Your task to perform on an android device: Turn on the flashlight Image 0: 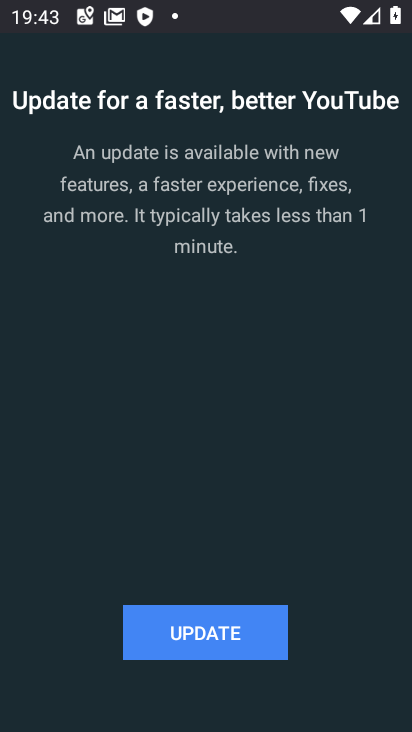
Step 0: press home button
Your task to perform on an android device: Turn on the flashlight Image 1: 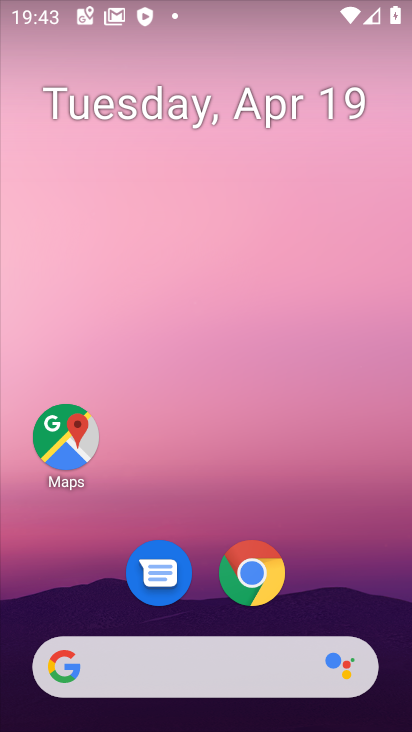
Step 1: drag from (345, 389) to (352, 116)
Your task to perform on an android device: Turn on the flashlight Image 2: 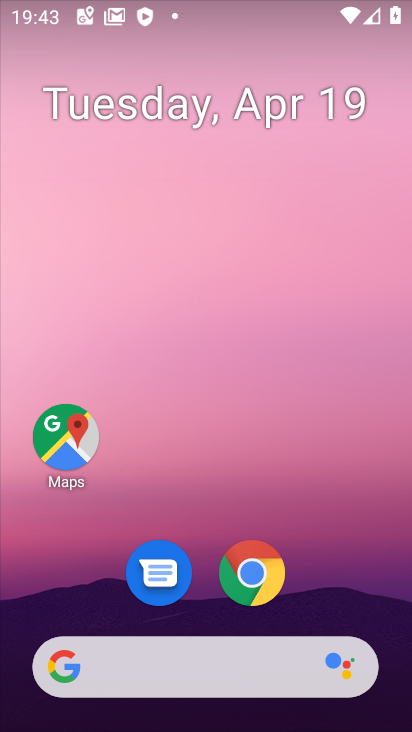
Step 2: click (369, 26)
Your task to perform on an android device: Turn on the flashlight Image 3: 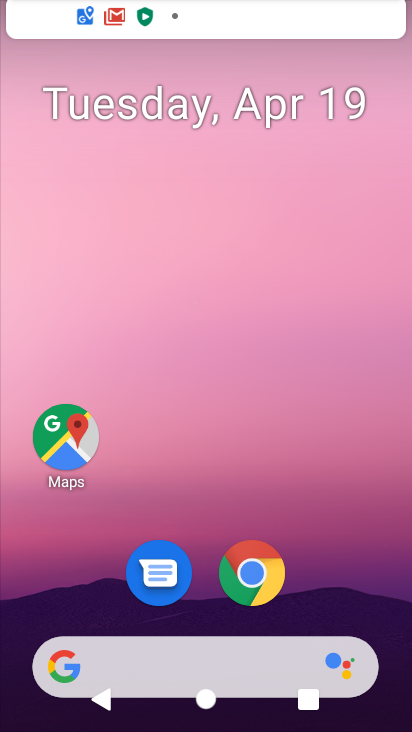
Step 3: drag from (365, 590) to (318, 89)
Your task to perform on an android device: Turn on the flashlight Image 4: 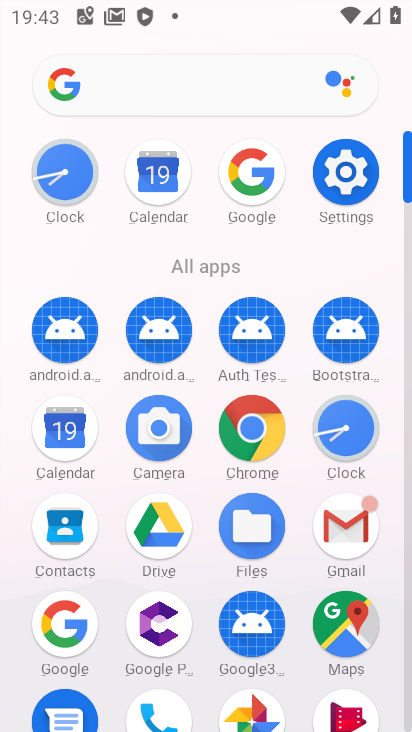
Step 4: click (350, 168)
Your task to perform on an android device: Turn on the flashlight Image 5: 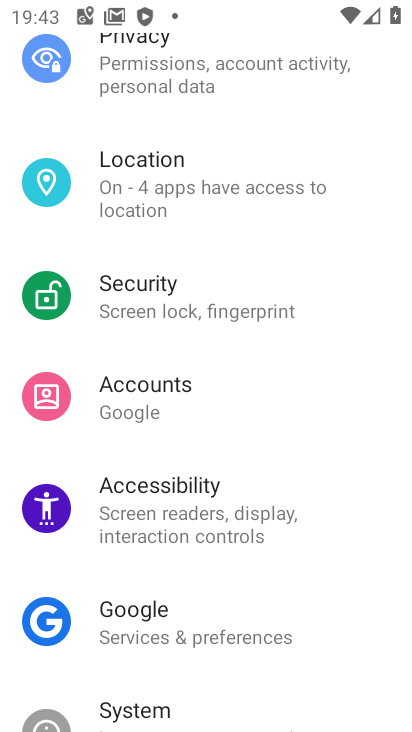
Step 5: drag from (326, 325) to (306, 647)
Your task to perform on an android device: Turn on the flashlight Image 6: 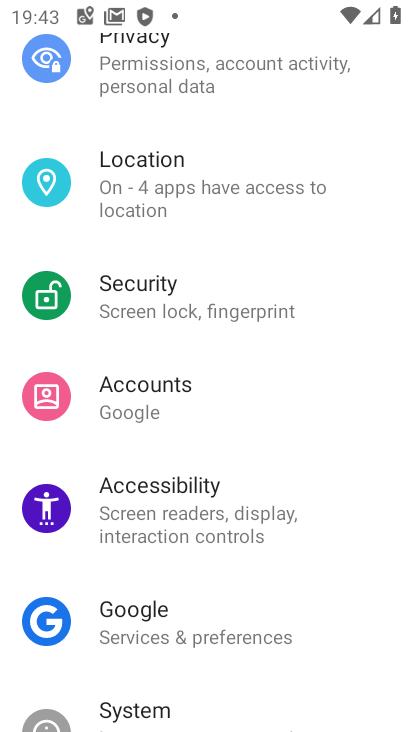
Step 6: drag from (388, 76) to (387, 577)
Your task to perform on an android device: Turn on the flashlight Image 7: 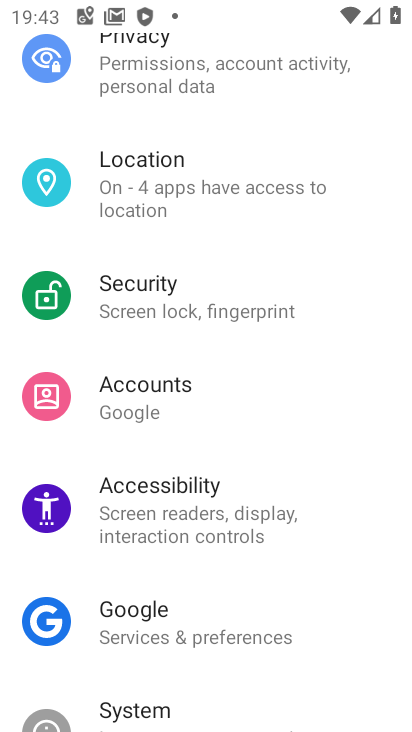
Step 7: drag from (389, 63) to (411, 311)
Your task to perform on an android device: Turn on the flashlight Image 8: 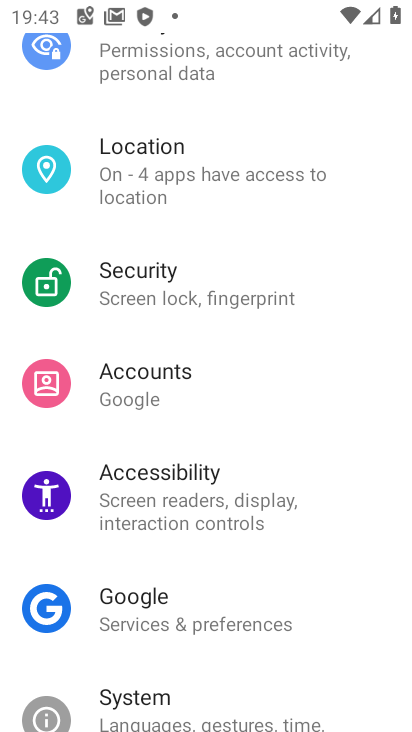
Step 8: click (358, 523)
Your task to perform on an android device: Turn on the flashlight Image 9: 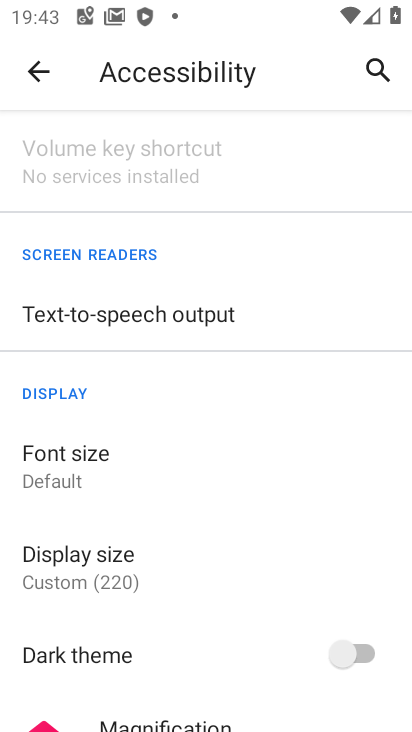
Step 9: press back button
Your task to perform on an android device: Turn on the flashlight Image 10: 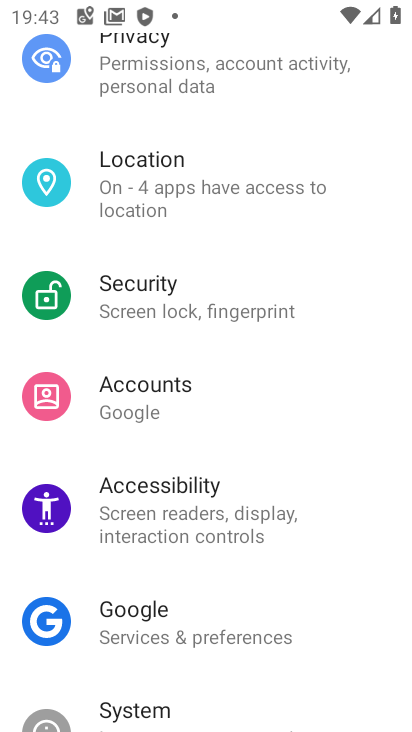
Step 10: drag from (351, 133) to (327, 642)
Your task to perform on an android device: Turn on the flashlight Image 11: 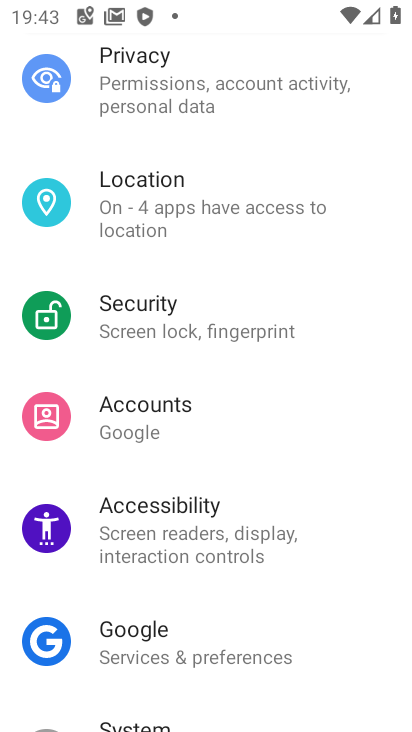
Step 11: drag from (368, 482) to (361, 588)
Your task to perform on an android device: Turn on the flashlight Image 12: 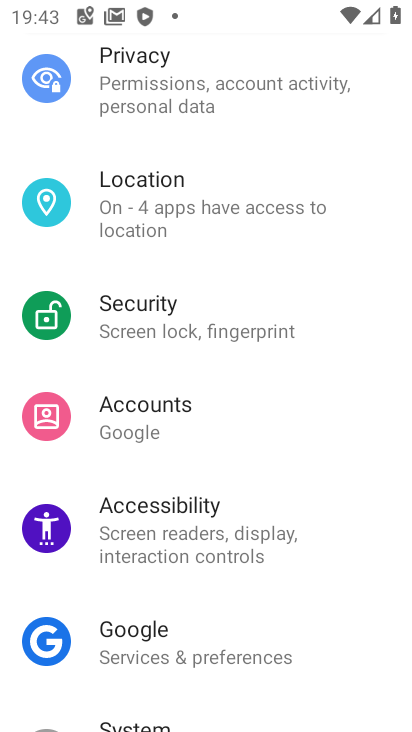
Step 12: drag from (375, 58) to (371, 581)
Your task to perform on an android device: Turn on the flashlight Image 13: 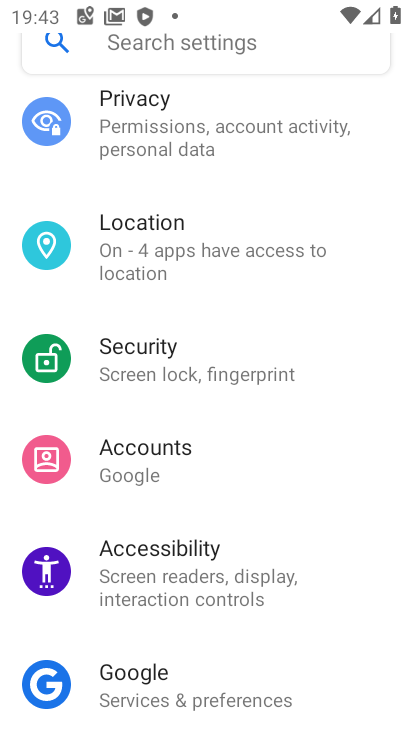
Step 13: drag from (411, 253) to (410, 439)
Your task to perform on an android device: Turn on the flashlight Image 14: 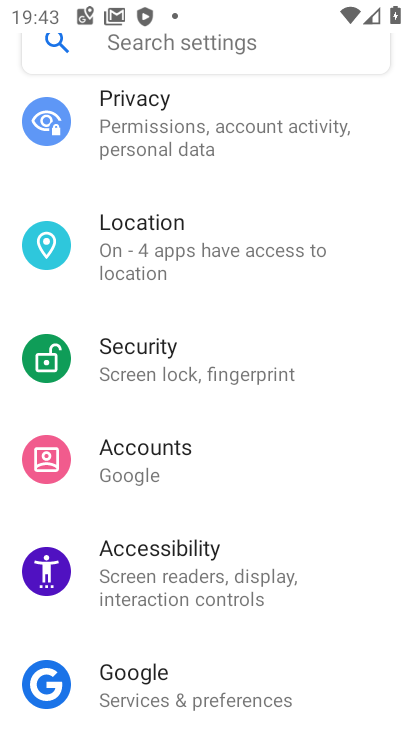
Step 14: drag from (376, 147) to (382, 564)
Your task to perform on an android device: Turn on the flashlight Image 15: 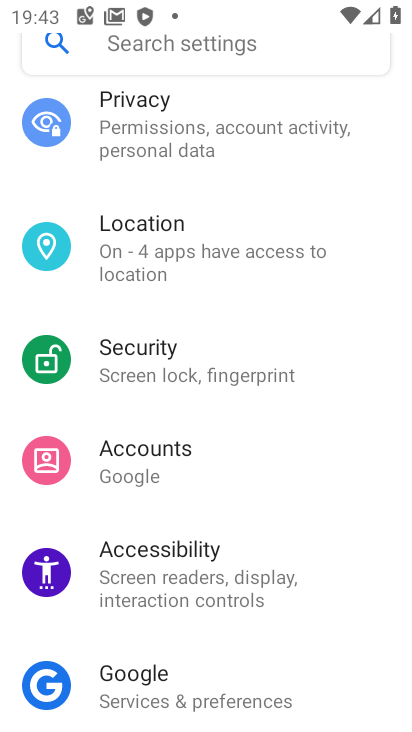
Step 15: drag from (408, 351) to (398, 662)
Your task to perform on an android device: Turn on the flashlight Image 16: 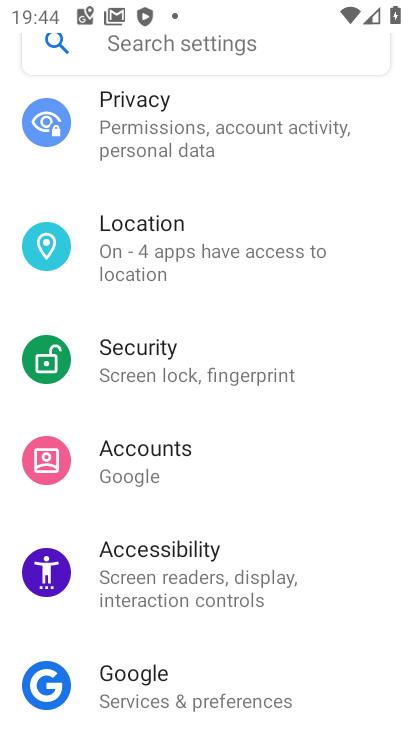
Step 16: click (365, 704)
Your task to perform on an android device: Turn on the flashlight Image 17: 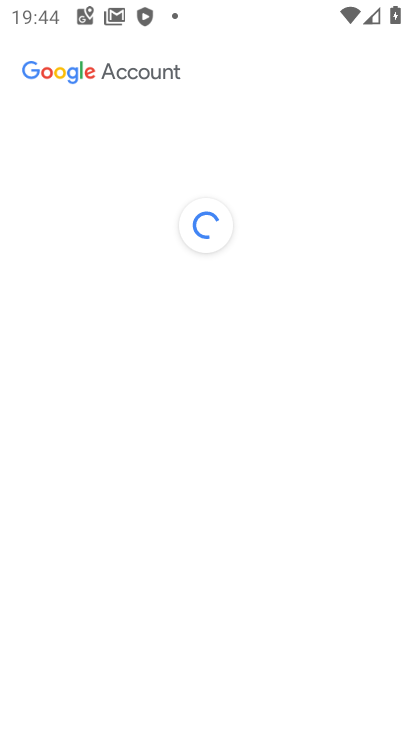
Step 17: click (147, 114)
Your task to perform on an android device: Turn on the flashlight Image 18: 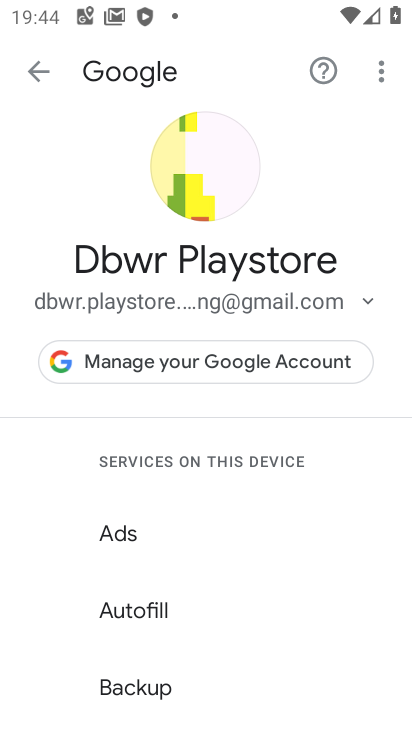
Step 18: task complete